Your task to perform on an android device: turn on the 24-hour format for clock Image 0: 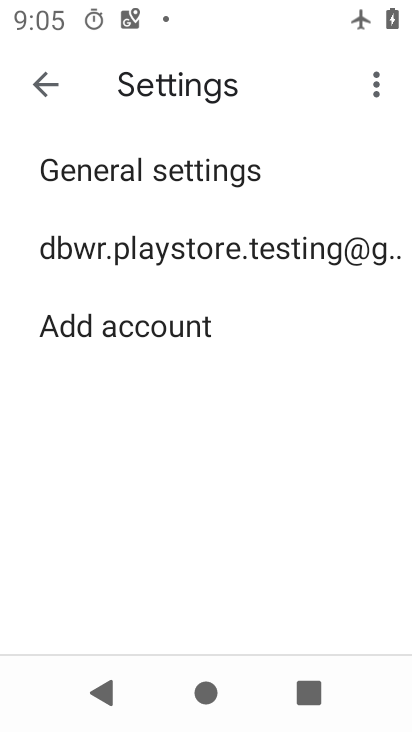
Step 0: press home button
Your task to perform on an android device: turn on the 24-hour format for clock Image 1: 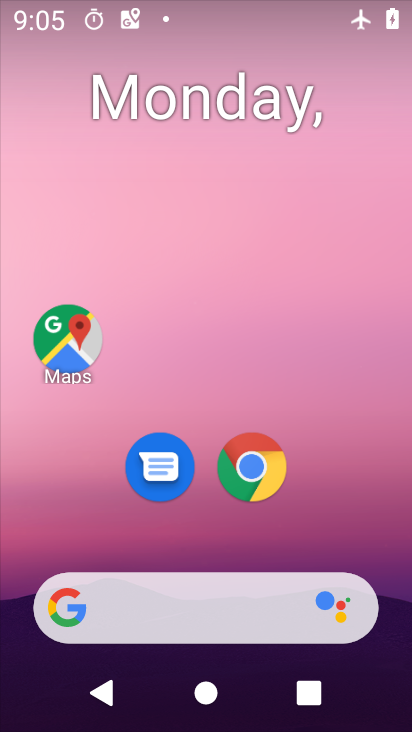
Step 1: drag from (206, 493) to (261, 77)
Your task to perform on an android device: turn on the 24-hour format for clock Image 2: 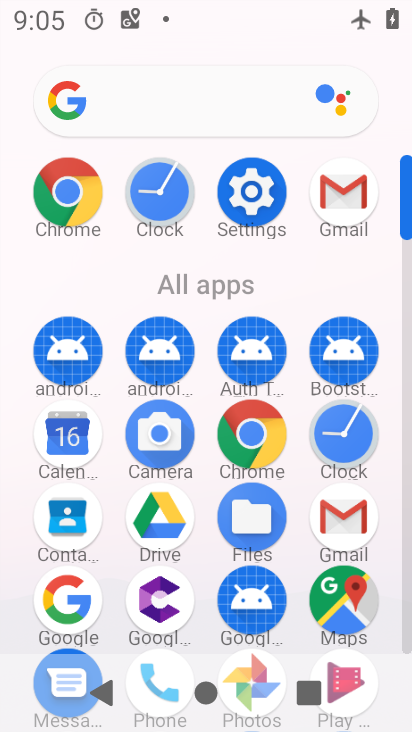
Step 2: click (159, 185)
Your task to perform on an android device: turn on the 24-hour format for clock Image 3: 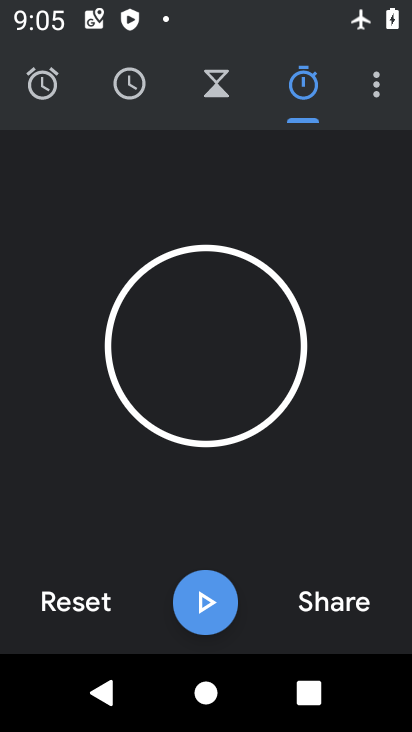
Step 3: click (382, 84)
Your task to perform on an android device: turn on the 24-hour format for clock Image 4: 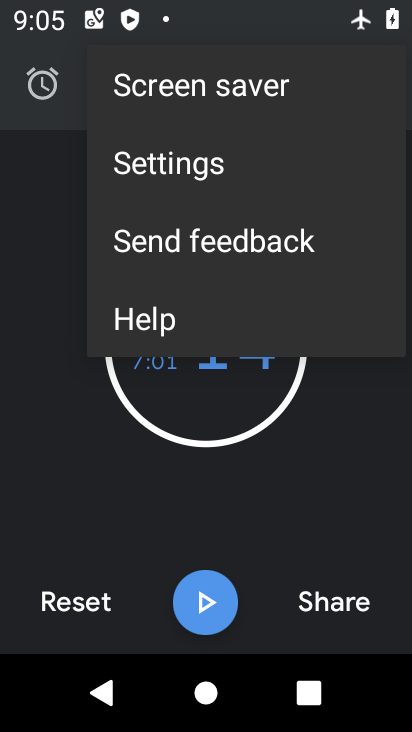
Step 4: click (182, 170)
Your task to perform on an android device: turn on the 24-hour format for clock Image 5: 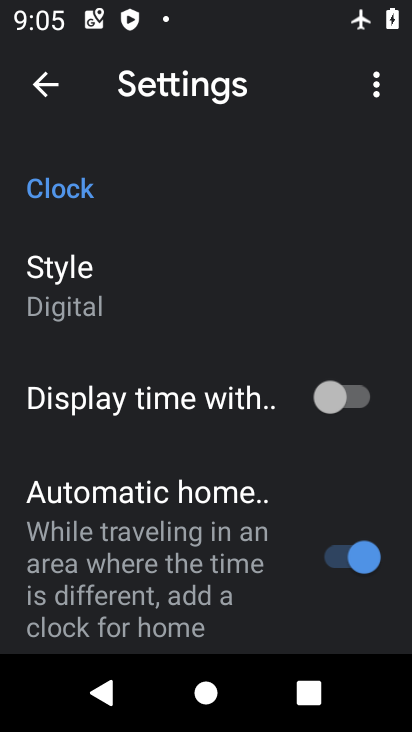
Step 5: drag from (171, 521) to (225, 65)
Your task to perform on an android device: turn on the 24-hour format for clock Image 6: 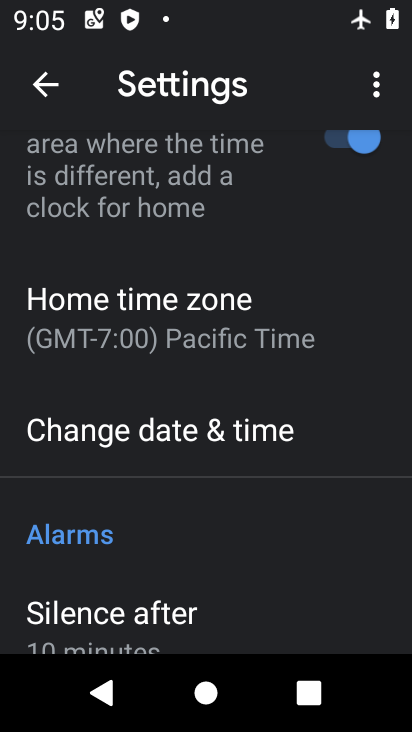
Step 6: click (169, 444)
Your task to perform on an android device: turn on the 24-hour format for clock Image 7: 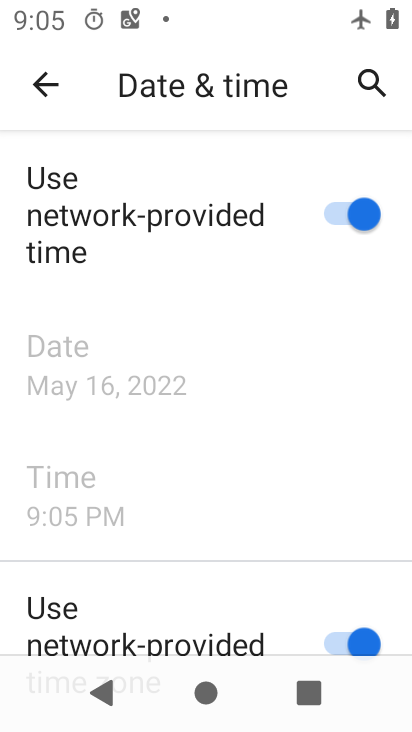
Step 7: drag from (212, 562) to (295, 131)
Your task to perform on an android device: turn on the 24-hour format for clock Image 8: 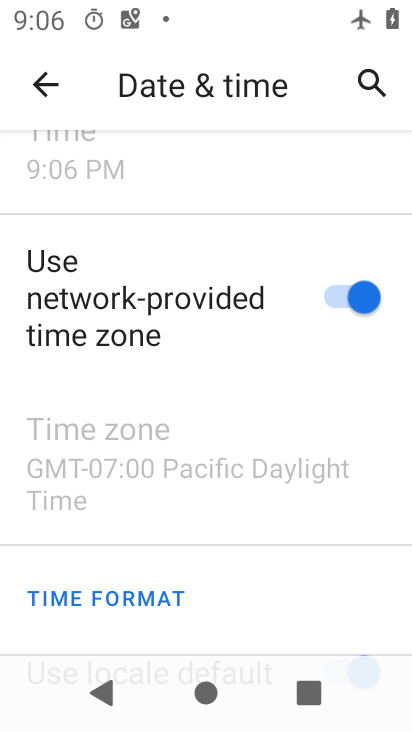
Step 8: drag from (213, 583) to (274, 198)
Your task to perform on an android device: turn on the 24-hour format for clock Image 9: 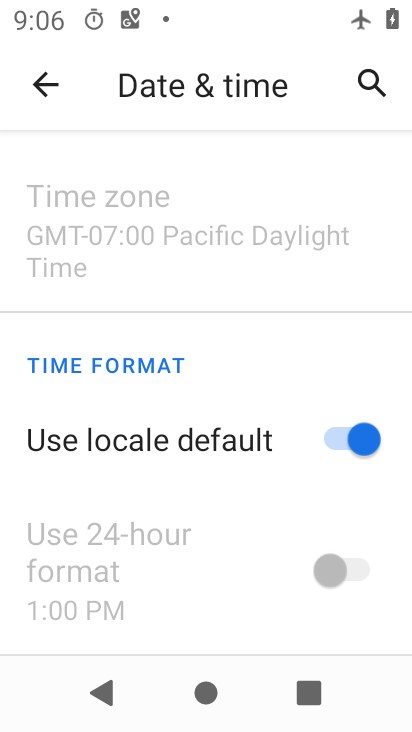
Step 9: click (344, 434)
Your task to perform on an android device: turn on the 24-hour format for clock Image 10: 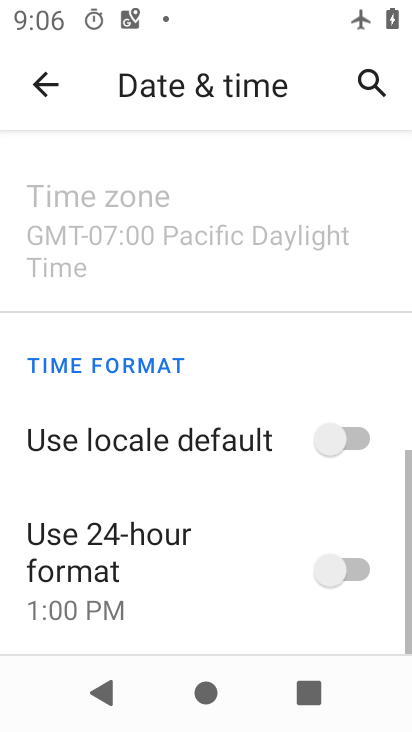
Step 10: click (345, 575)
Your task to perform on an android device: turn on the 24-hour format for clock Image 11: 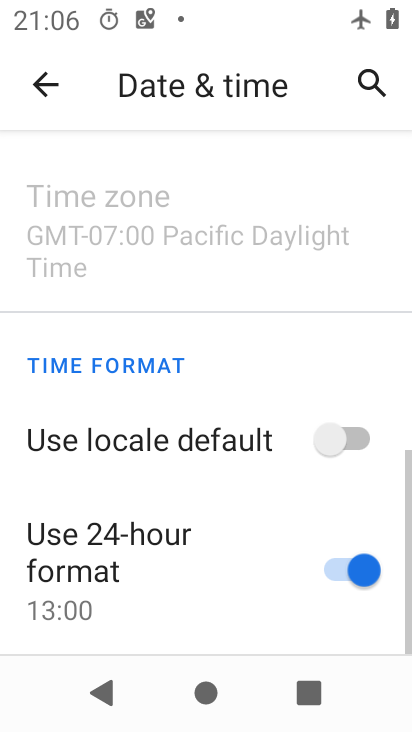
Step 11: task complete